Your task to perform on an android device: Go to eBay Image 0: 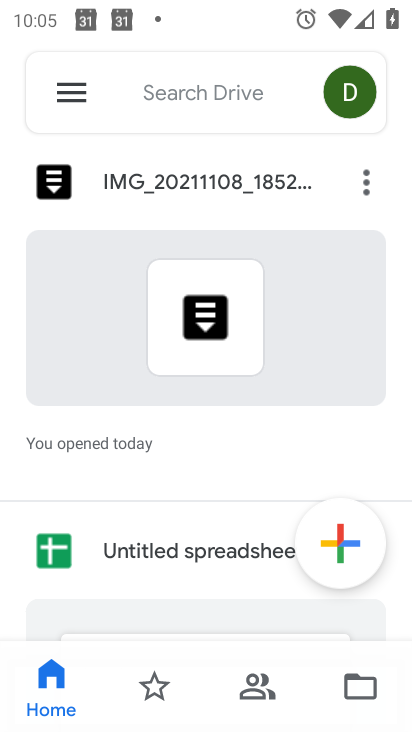
Step 0: press home button
Your task to perform on an android device: Go to eBay Image 1: 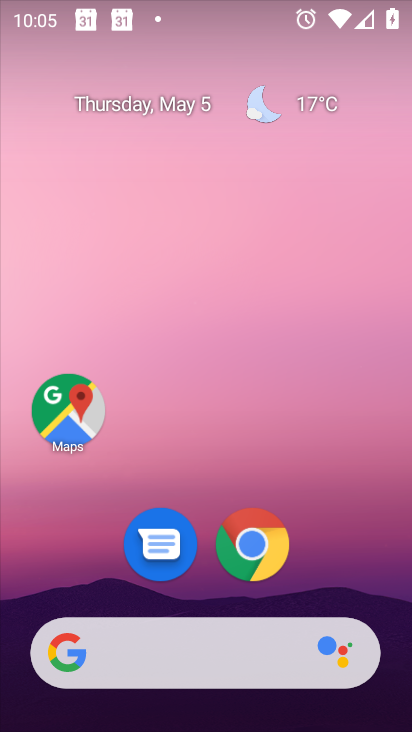
Step 1: click (272, 540)
Your task to perform on an android device: Go to eBay Image 2: 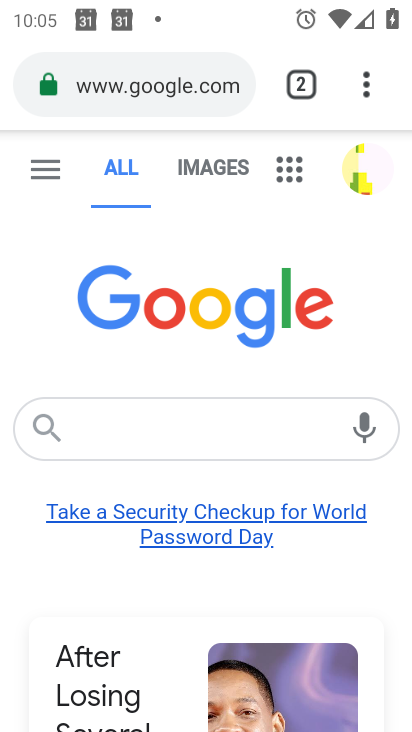
Step 2: click (181, 105)
Your task to perform on an android device: Go to eBay Image 3: 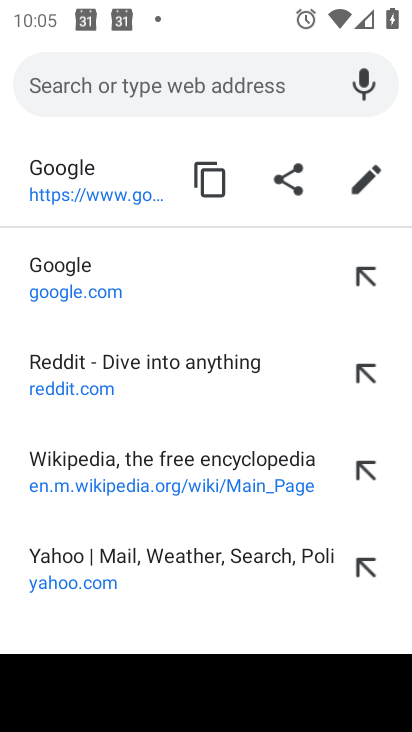
Step 3: type "ebay.com"
Your task to perform on an android device: Go to eBay Image 4: 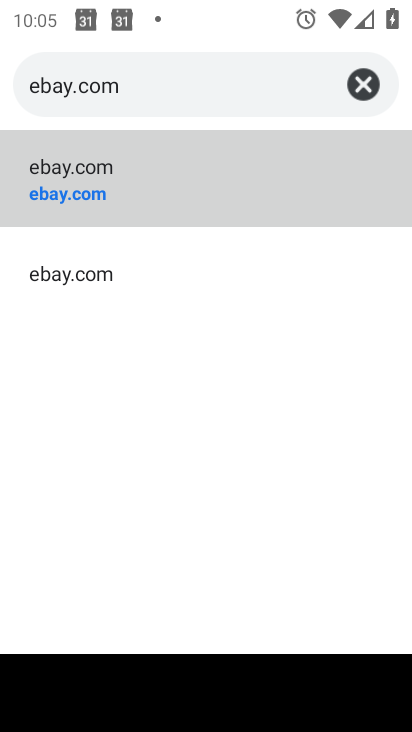
Step 4: click (62, 201)
Your task to perform on an android device: Go to eBay Image 5: 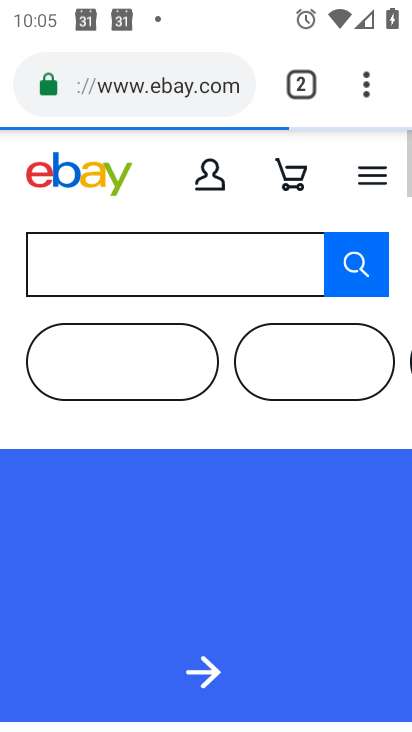
Step 5: task complete